Your task to perform on an android device: snooze an email in the gmail app Image 0: 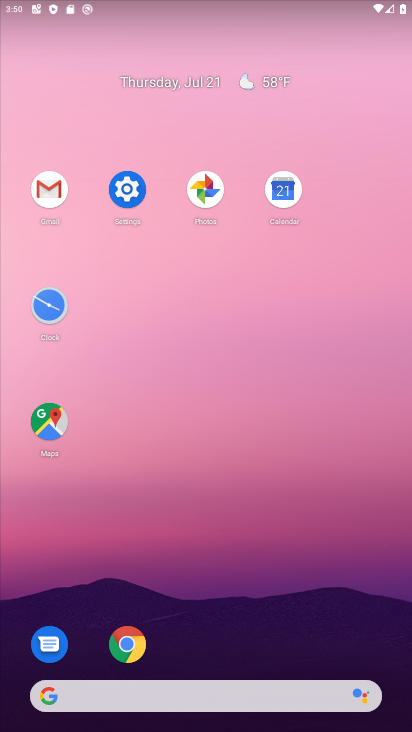
Step 0: click (58, 193)
Your task to perform on an android device: snooze an email in the gmail app Image 1: 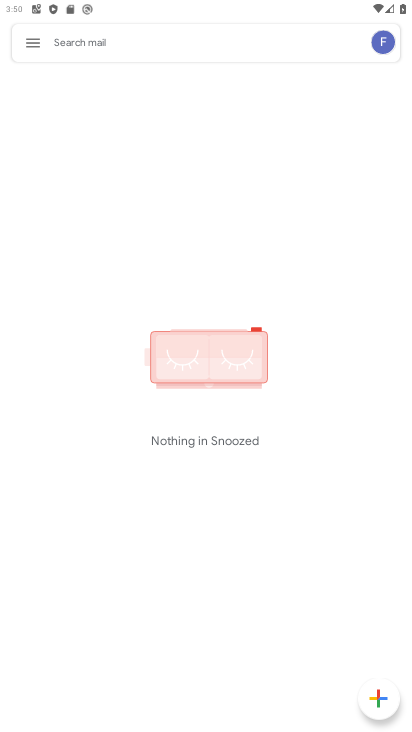
Step 1: click (31, 52)
Your task to perform on an android device: snooze an email in the gmail app Image 2: 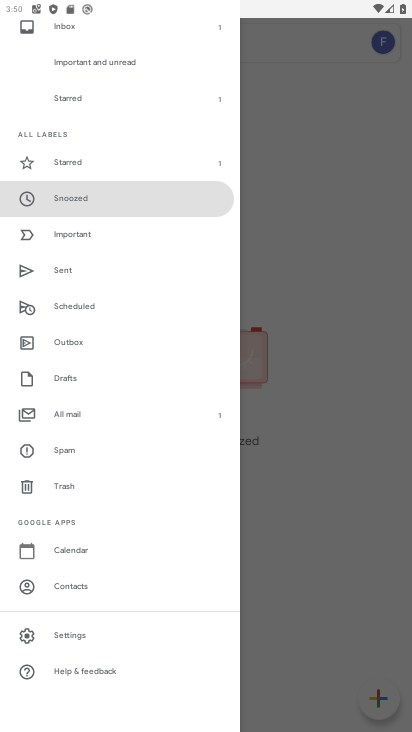
Step 2: click (77, 414)
Your task to perform on an android device: snooze an email in the gmail app Image 3: 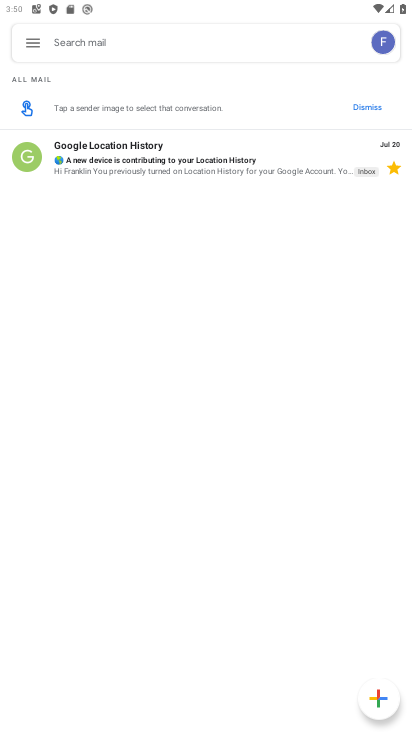
Step 3: click (304, 158)
Your task to perform on an android device: snooze an email in the gmail app Image 4: 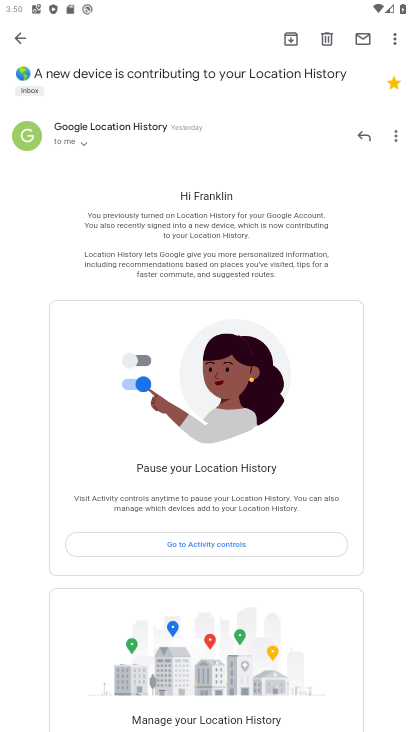
Step 4: click (383, 41)
Your task to perform on an android device: snooze an email in the gmail app Image 5: 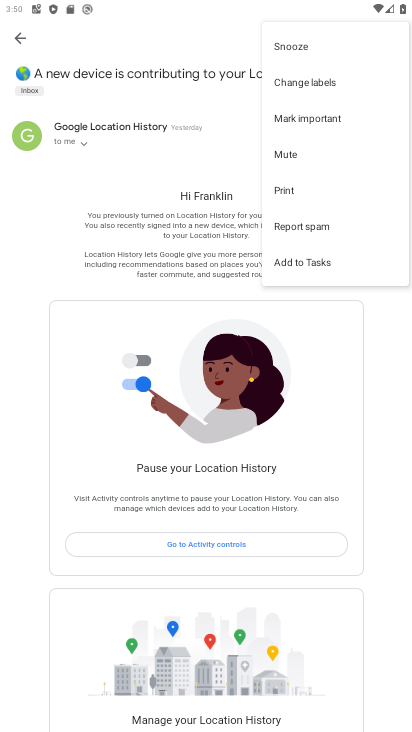
Step 5: click (342, 44)
Your task to perform on an android device: snooze an email in the gmail app Image 6: 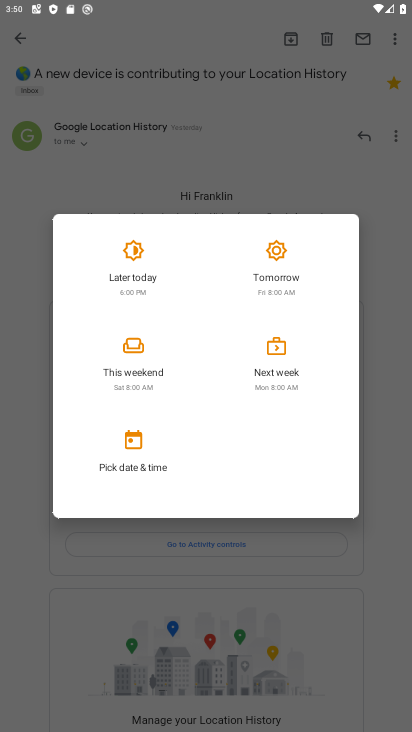
Step 6: click (143, 273)
Your task to perform on an android device: snooze an email in the gmail app Image 7: 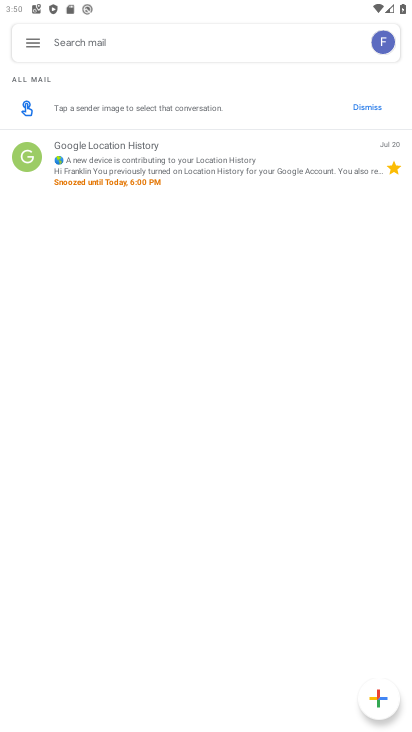
Step 7: task complete